Your task to perform on an android device: Show the shopping cart on target.com. Image 0: 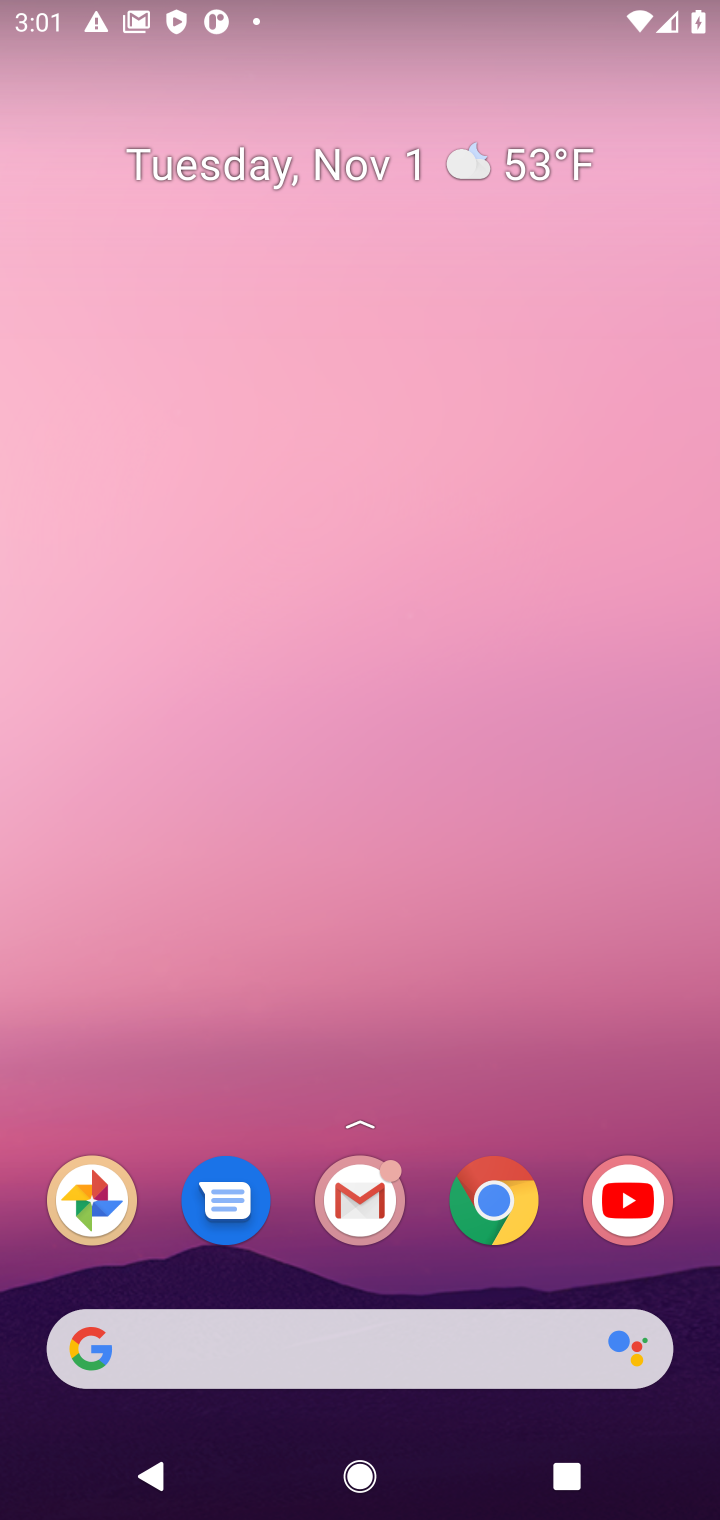
Step 0: task complete